Your task to perform on an android device: turn vacation reply on in the gmail app Image 0: 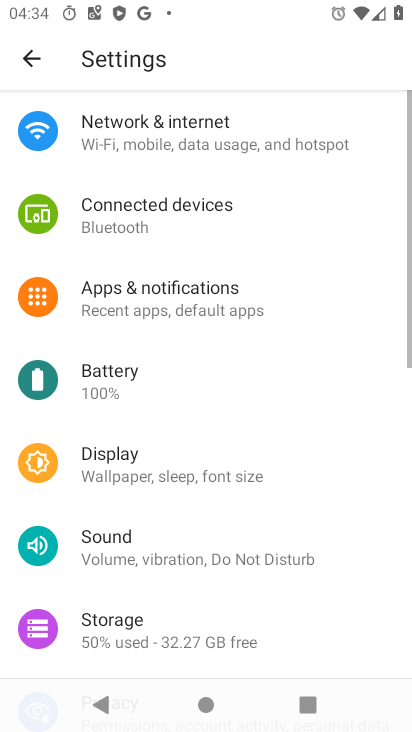
Step 0: press home button
Your task to perform on an android device: turn vacation reply on in the gmail app Image 1: 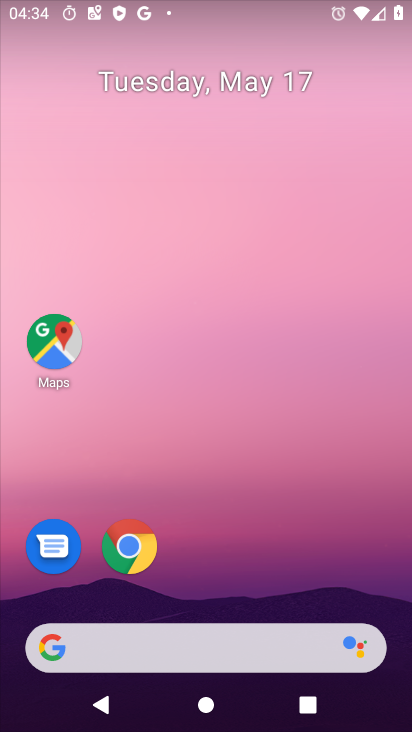
Step 1: click (402, 315)
Your task to perform on an android device: turn vacation reply on in the gmail app Image 2: 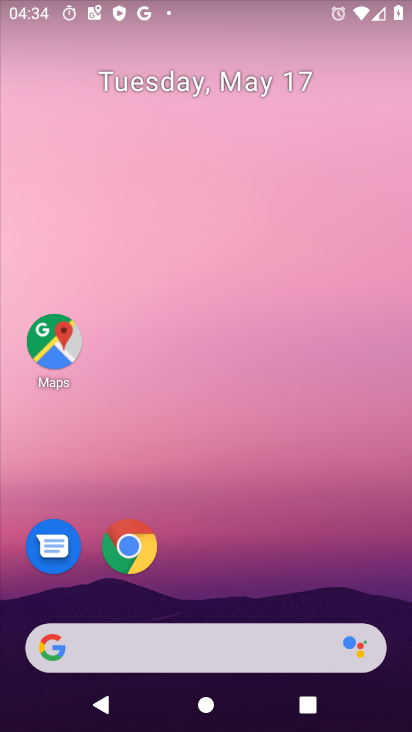
Step 2: drag from (410, 548) to (411, 243)
Your task to perform on an android device: turn vacation reply on in the gmail app Image 3: 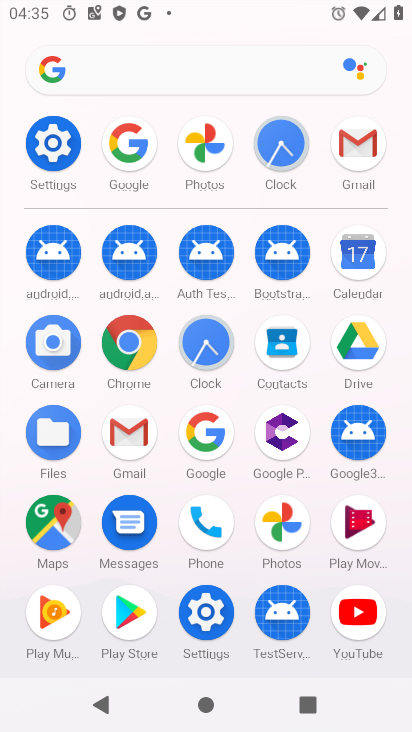
Step 3: click (148, 425)
Your task to perform on an android device: turn vacation reply on in the gmail app Image 4: 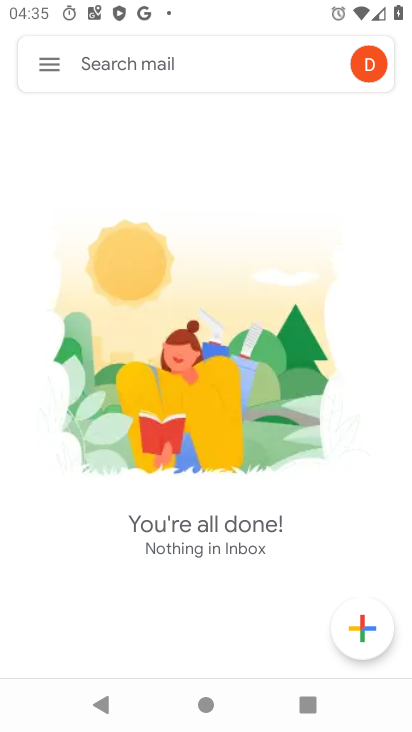
Step 4: click (41, 58)
Your task to perform on an android device: turn vacation reply on in the gmail app Image 5: 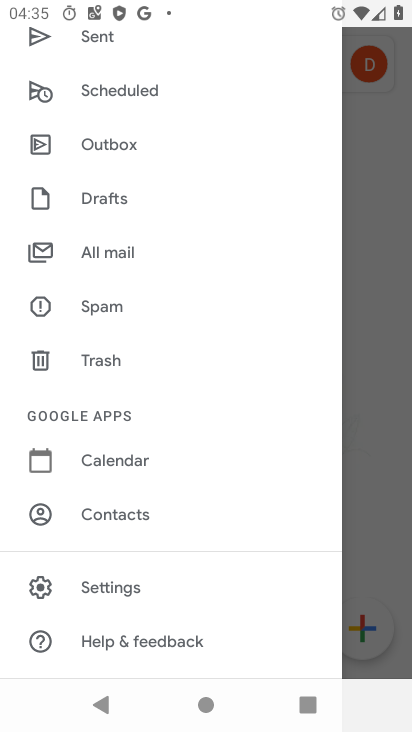
Step 5: click (115, 584)
Your task to perform on an android device: turn vacation reply on in the gmail app Image 6: 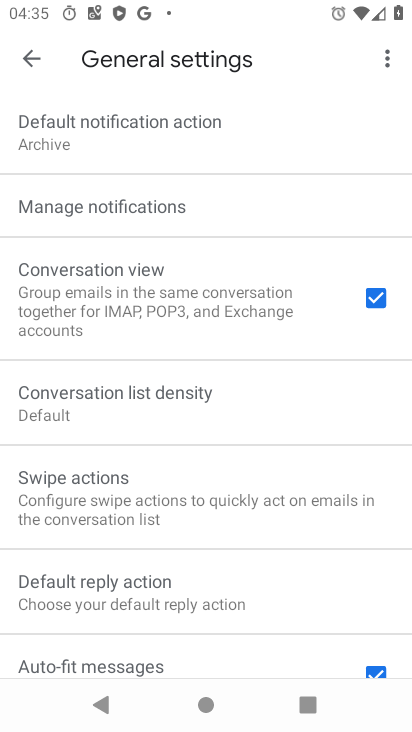
Step 6: click (35, 67)
Your task to perform on an android device: turn vacation reply on in the gmail app Image 7: 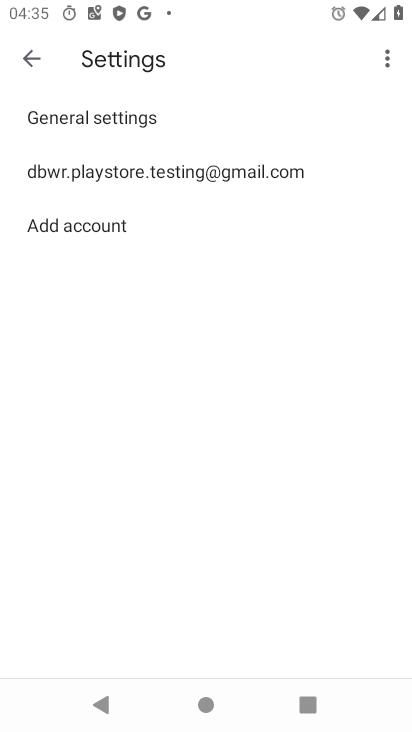
Step 7: click (78, 173)
Your task to perform on an android device: turn vacation reply on in the gmail app Image 8: 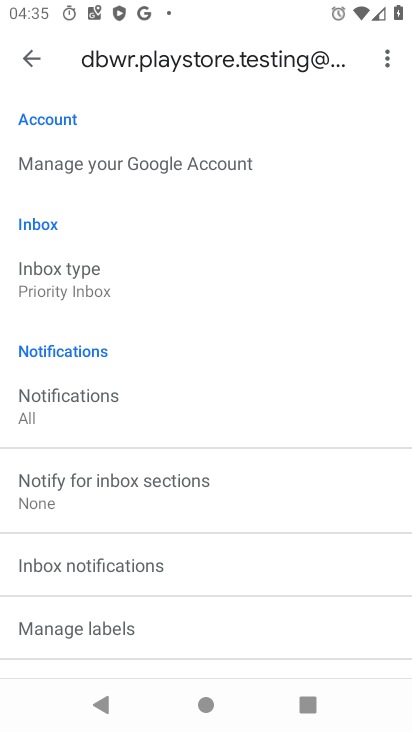
Step 8: task complete